Your task to perform on an android device: What's on my calendar tomorrow? Image 0: 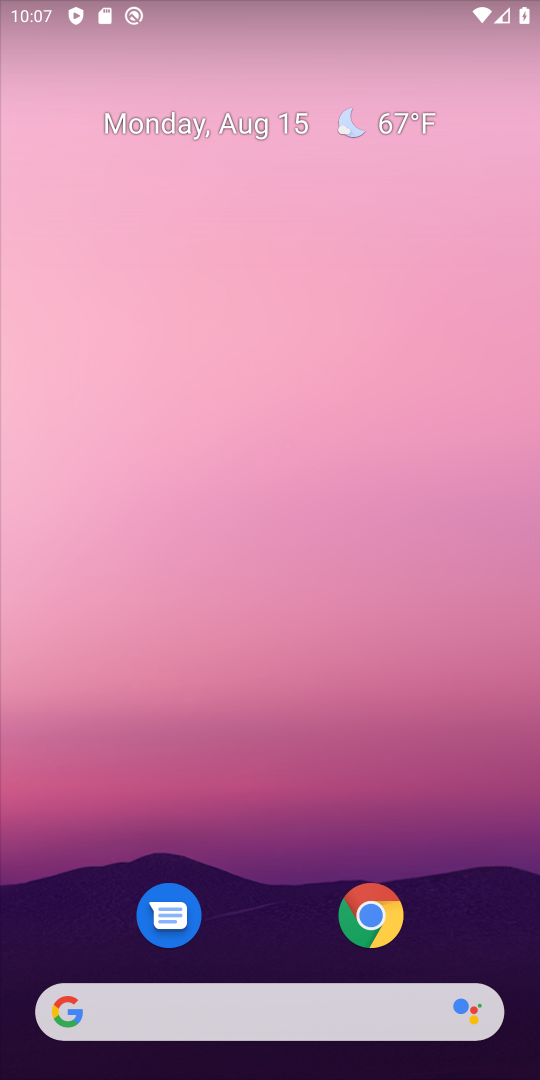
Step 0: drag from (444, 906) to (375, 78)
Your task to perform on an android device: What's on my calendar tomorrow? Image 1: 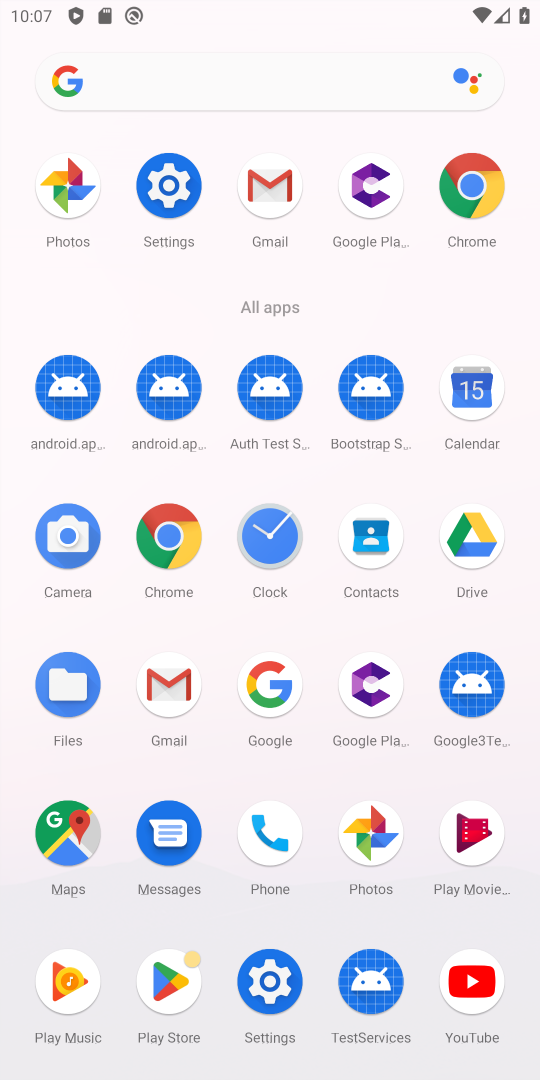
Step 1: click (479, 387)
Your task to perform on an android device: What's on my calendar tomorrow? Image 2: 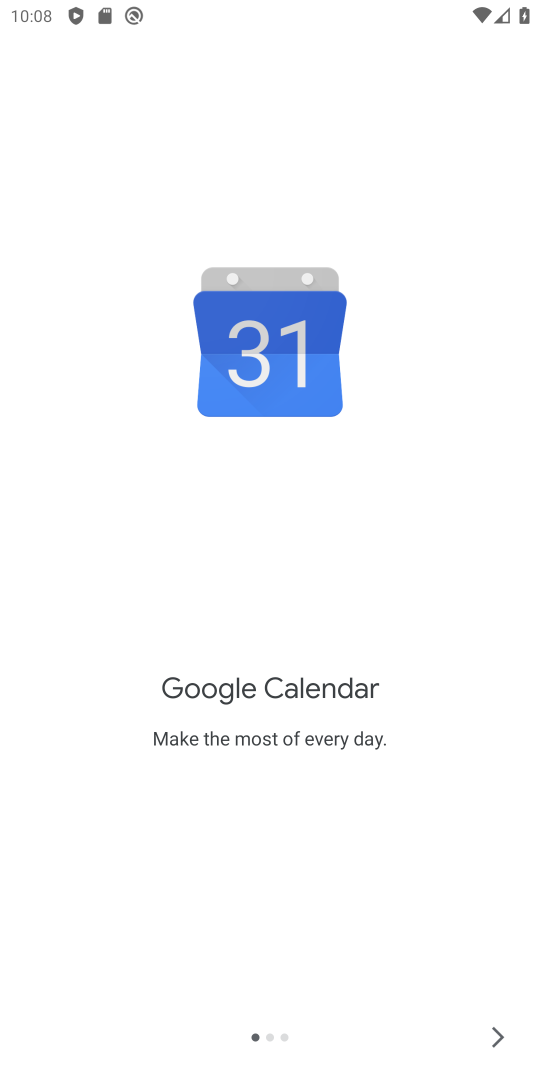
Step 2: click (494, 1036)
Your task to perform on an android device: What's on my calendar tomorrow? Image 3: 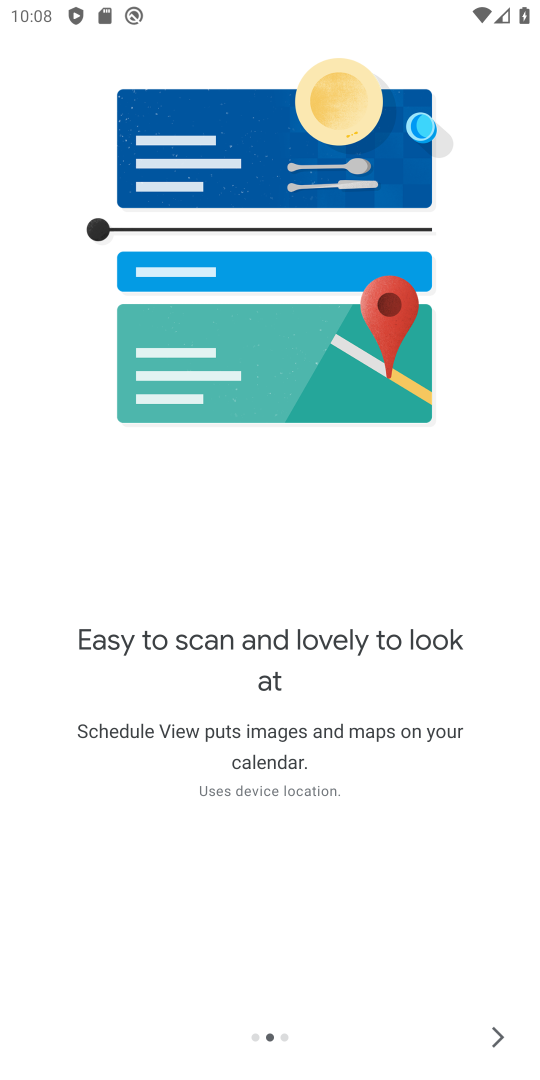
Step 3: click (494, 1036)
Your task to perform on an android device: What's on my calendar tomorrow? Image 4: 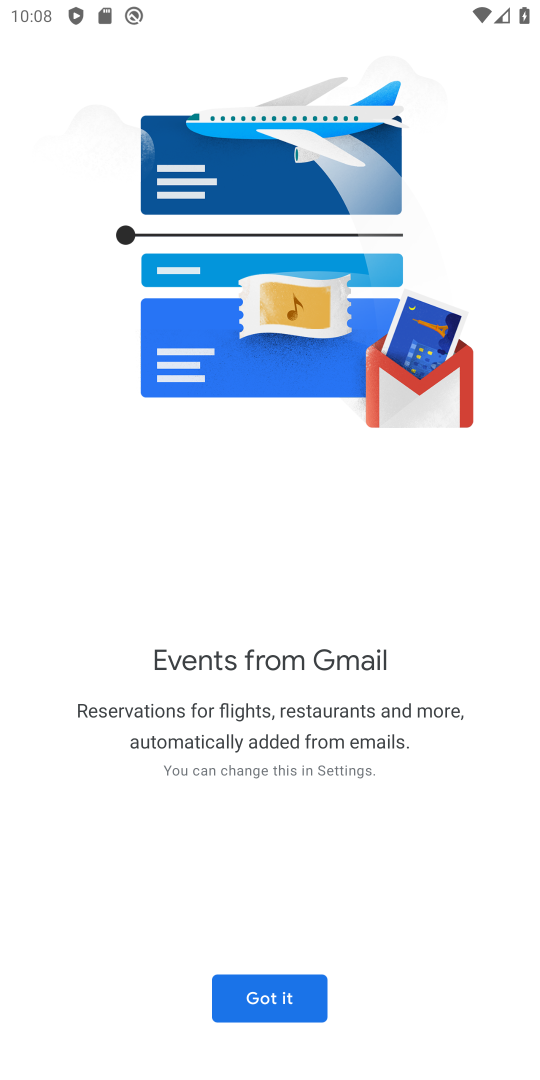
Step 4: click (266, 1004)
Your task to perform on an android device: What's on my calendar tomorrow? Image 5: 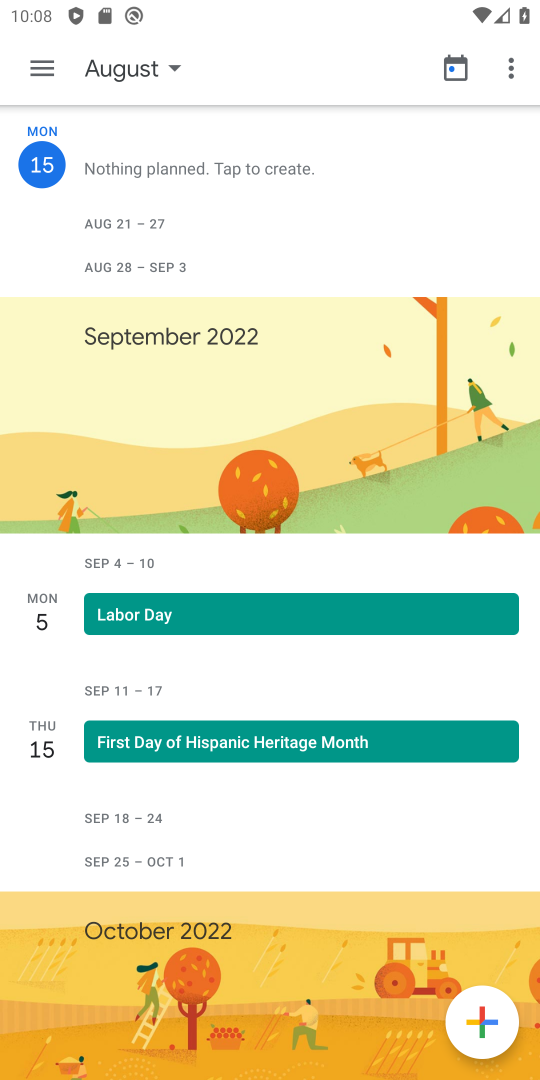
Step 5: click (38, 88)
Your task to perform on an android device: What's on my calendar tomorrow? Image 6: 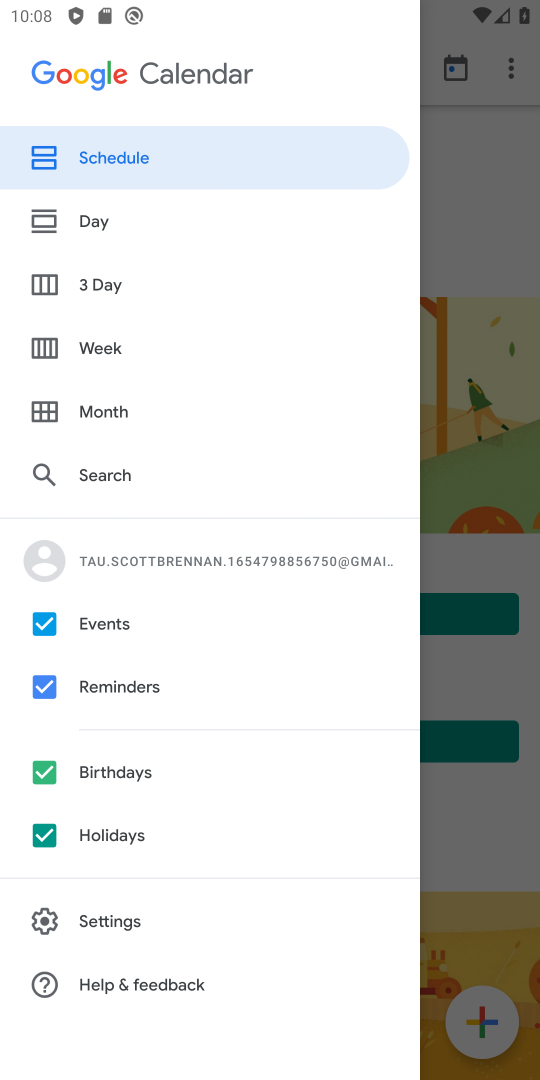
Step 6: click (132, 220)
Your task to perform on an android device: What's on my calendar tomorrow? Image 7: 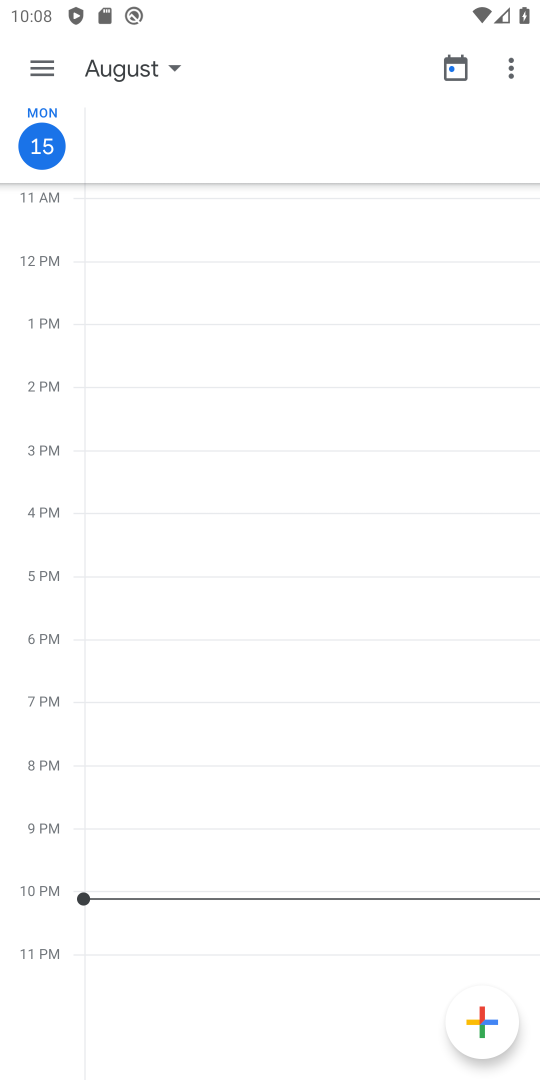
Step 7: click (144, 72)
Your task to perform on an android device: What's on my calendar tomorrow? Image 8: 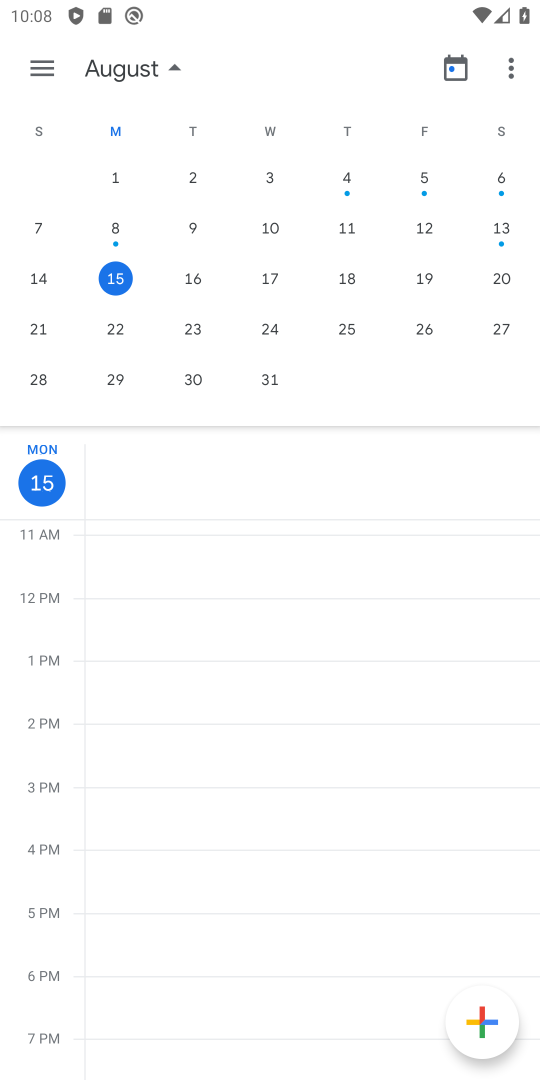
Step 8: click (195, 280)
Your task to perform on an android device: What's on my calendar tomorrow? Image 9: 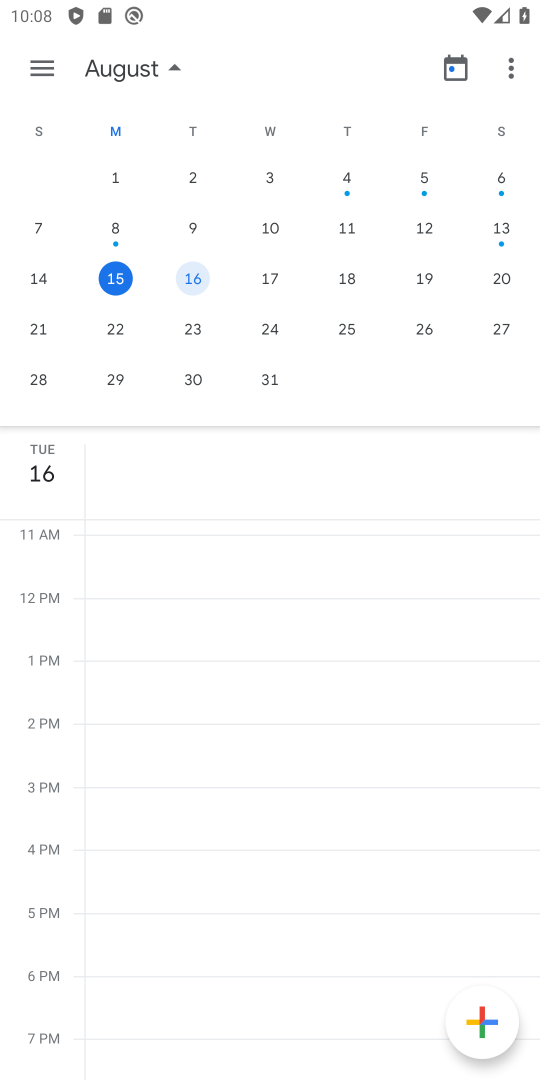
Step 9: task complete